Your task to perform on an android device: turn on showing notifications on the lock screen Image 0: 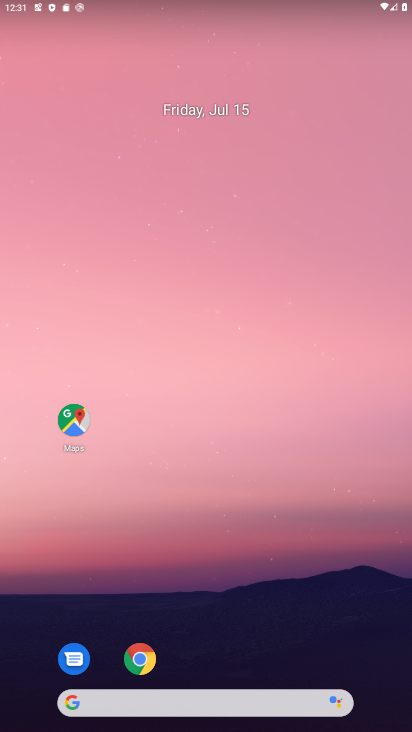
Step 0: drag from (192, 640) to (240, 149)
Your task to perform on an android device: turn on showing notifications on the lock screen Image 1: 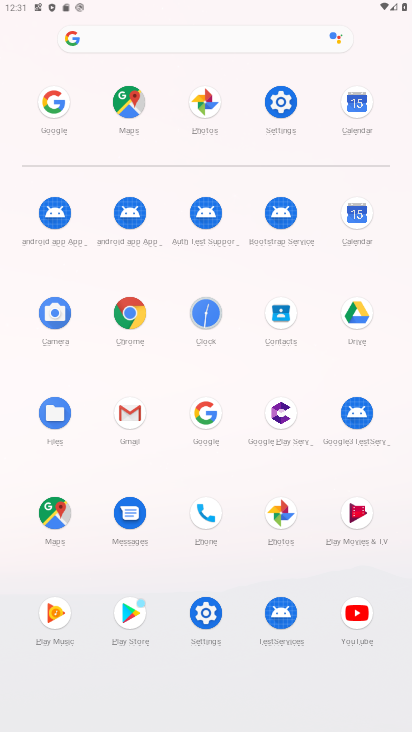
Step 1: click (281, 102)
Your task to perform on an android device: turn on showing notifications on the lock screen Image 2: 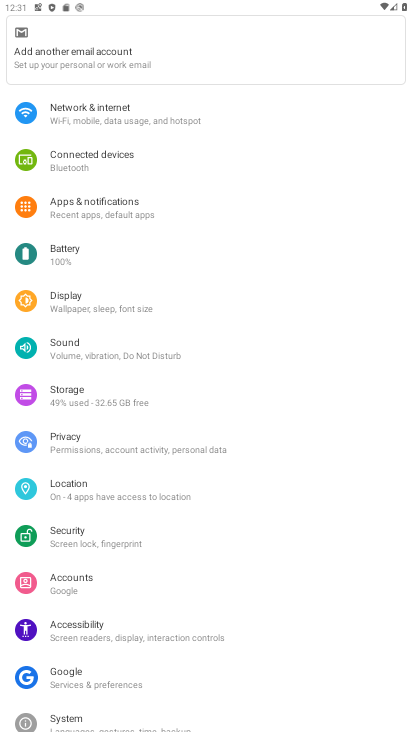
Step 2: click (133, 207)
Your task to perform on an android device: turn on showing notifications on the lock screen Image 3: 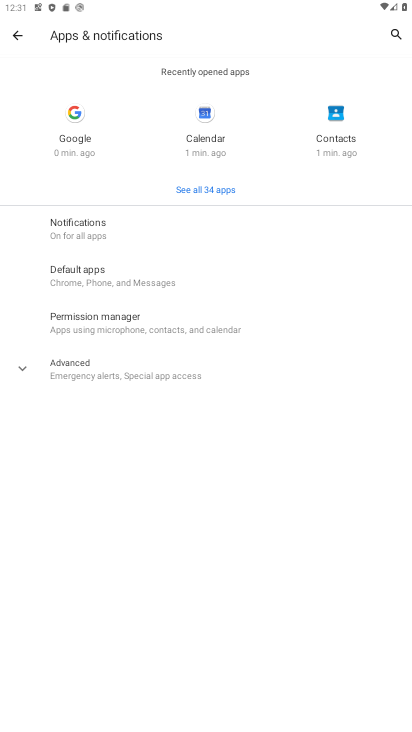
Step 3: click (130, 224)
Your task to perform on an android device: turn on showing notifications on the lock screen Image 4: 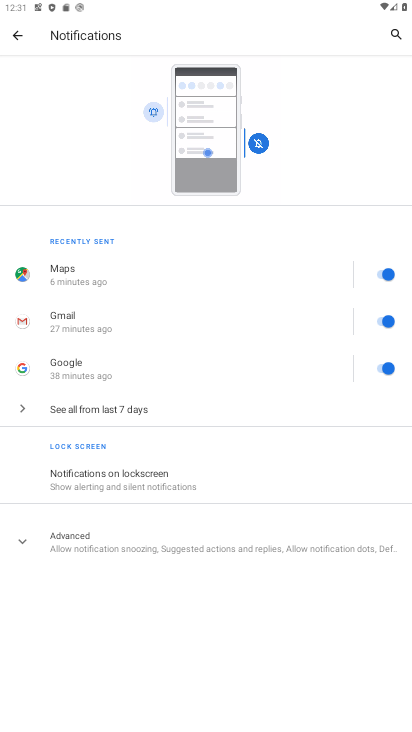
Step 4: click (95, 465)
Your task to perform on an android device: turn on showing notifications on the lock screen Image 5: 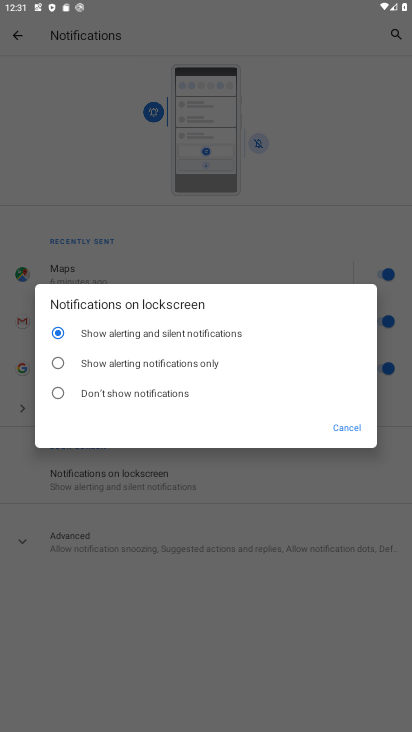
Step 5: task complete